Your task to perform on an android device: Open calendar and show me the third week of next month Image 0: 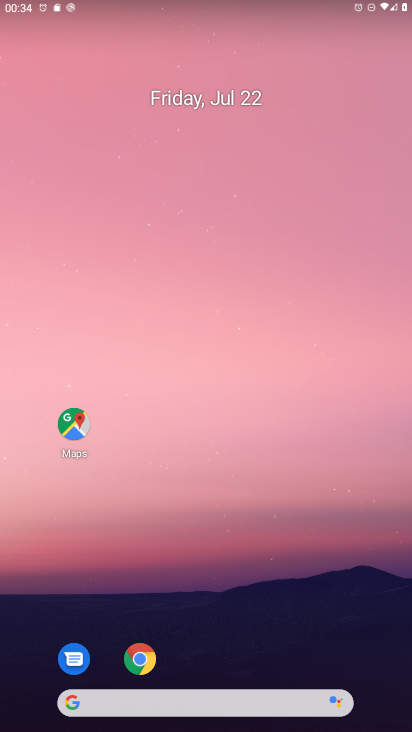
Step 0: drag from (230, 697) to (239, 178)
Your task to perform on an android device: Open calendar and show me the third week of next month Image 1: 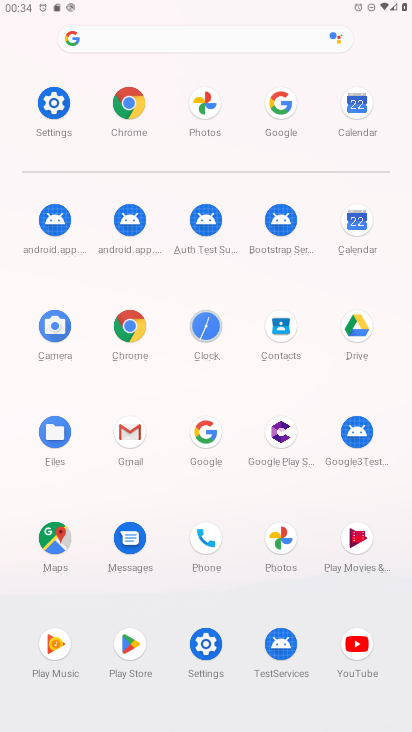
Step 1: click (356, 104)
Your task to perform on an android device: Open calendar and show me the third week of next month Image 2: 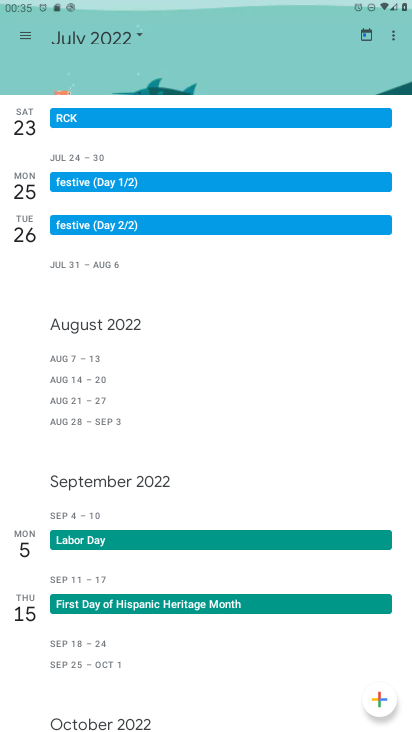
Step 2: click (368, 32)
Your task to perform on an android device: Open calendar and show me the third week of next month Image 3: 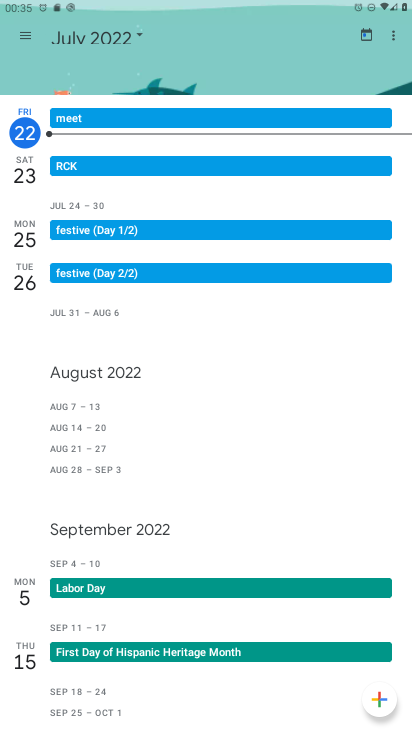
Step 3: click (138, 36)
Your task to perform on an android device: Open calendar and show me the third week of next month Image 4: 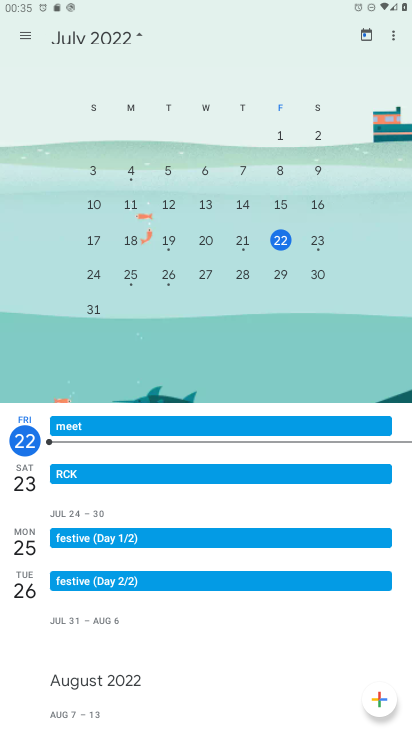
Step 4: drag from (324, 253) to (1, 252)
Your task to perform on an android device: Open calendar and show me the third week of next month Image 5: 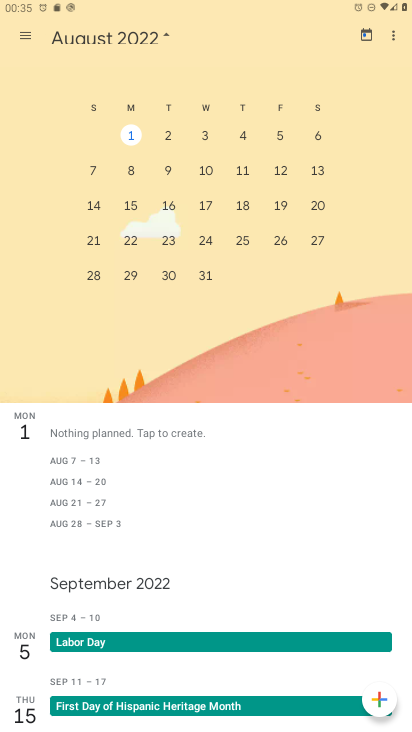
Step 5: click (135, 203)
Your task to perform on an android device: Open calendar and show me the third week of next month Image 6: 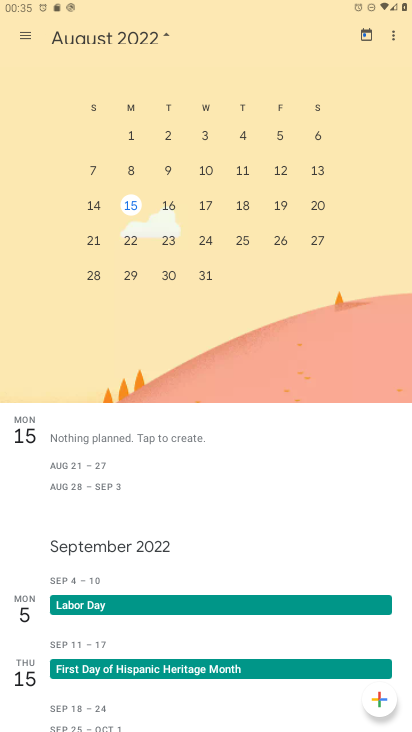
Step 6: click (23, 35)
Your task to perform on an android device: Open calendar and show me the third week of next month Image 7: 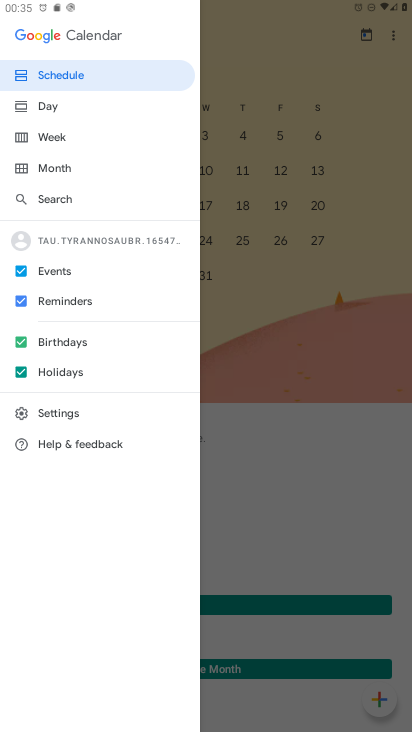
Step 7: click (55, 139)
Your task to perform on an android device: Open calendar and show me the third week of next month Image 8: 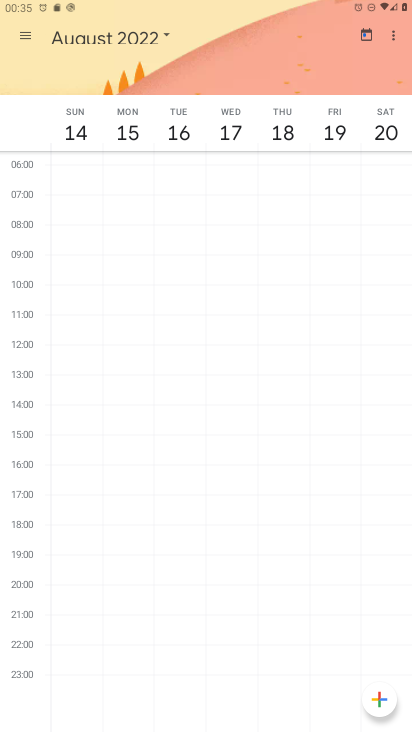
Step 8: task complete